Your task to perform on an android device: Search for Mexican restaurants on Maps Image 0: 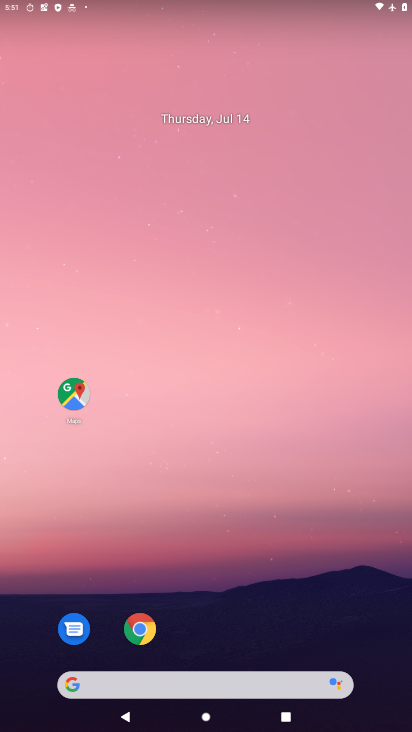
Step 0: drag from (316, 688) to (331, 61)
Your task to perform on an android device: Search for Mexican restaurants on Maps Image 1: 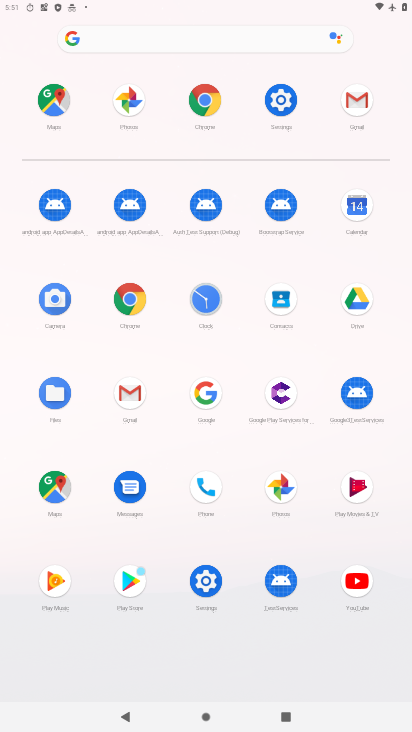
Step 1: click (51, 489)
Your task to perform on an android device: Search for Mexican restaurants on Maps Image 2: 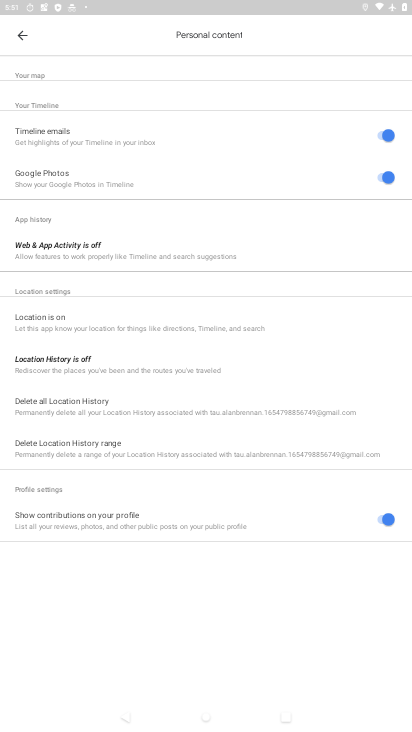
Step 2: press back button
Your task to perform on an android device: Search for Mexican restaurants on Maps Image 3: 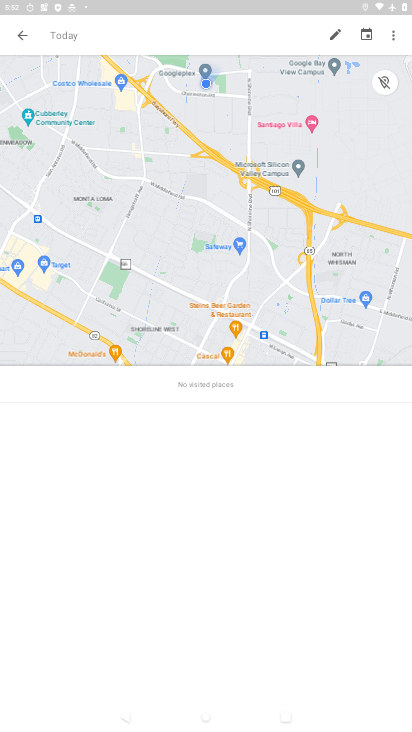
Step 3: press back button
Your task to perform on an android device: Search for Mexican restaurants on Maps Image 4: 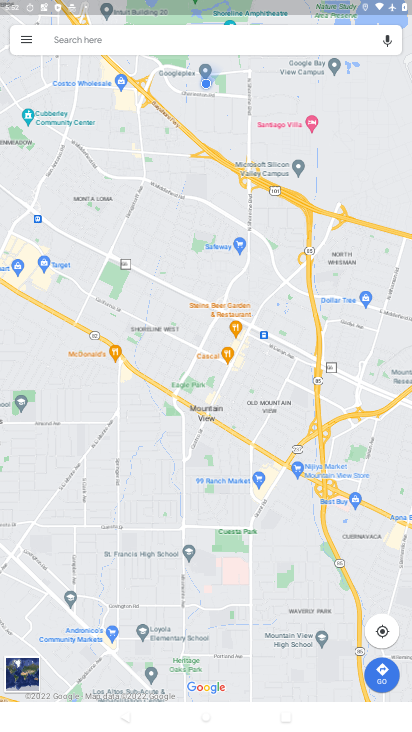
Step 4: click (139, 46)
Your task to perform on an android device: Search for Mexican restaurants on Maps Image 5: 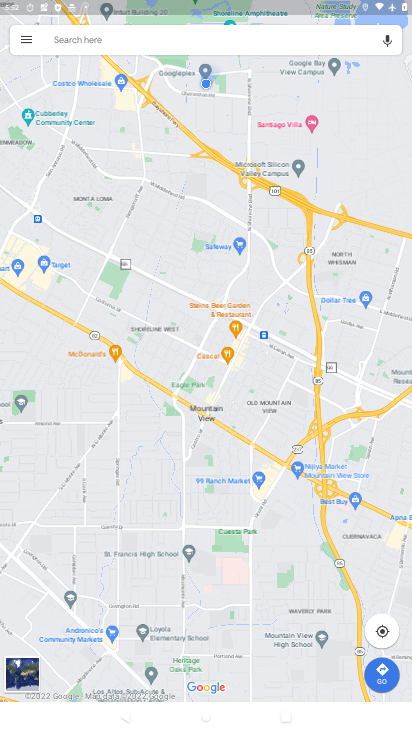
Step 5: click (139, 46)
Your task to perform on an android device: Search for Mexican restaurants on Maps Image 6: 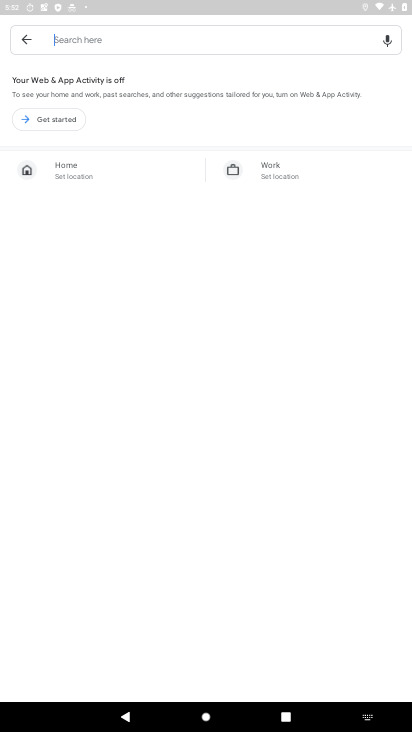
Step 6: type "mexican restaurant"
Your task to perform on an android device: Search for Mexican restaurants on Maps Image 7: 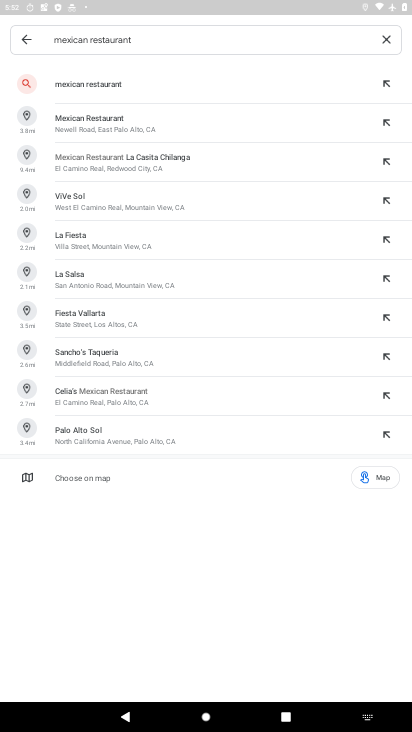
Step 7: click (112, 86)
Your task to perform on an android device: Search for Mexican restaurants on Maps Image 8: 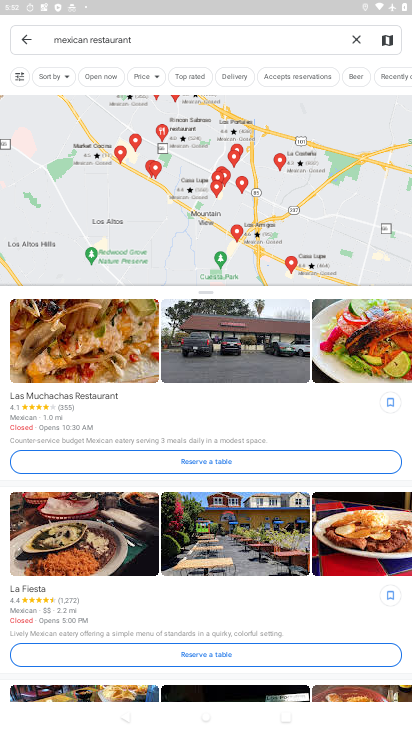
Step 8: task complete